Your task to perform on an android device: open the mobile data screen to see how much data has been used Image 0: 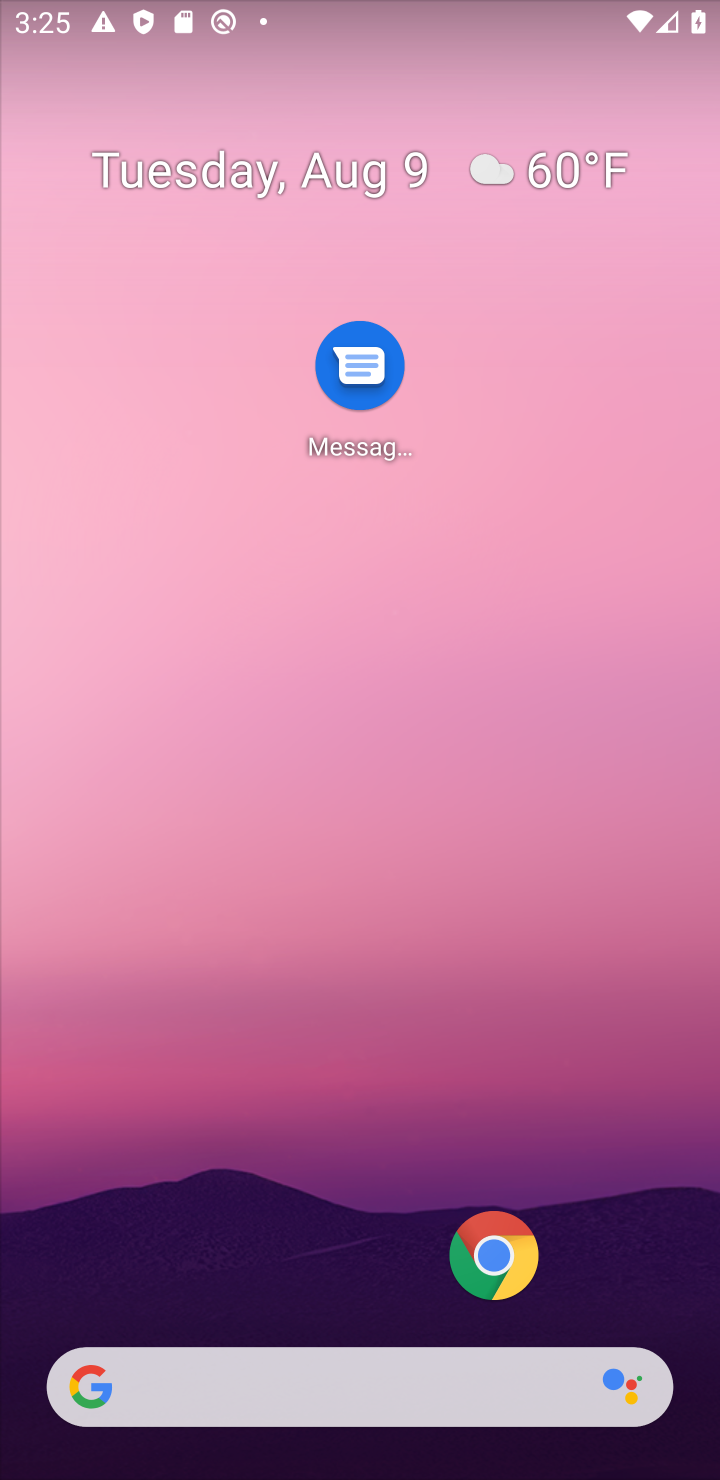
Step 0: drag from (465, 708) to (465, 393)
Your task to perform on an android device: open the mobile data screen to see how much data has been used Image 1: 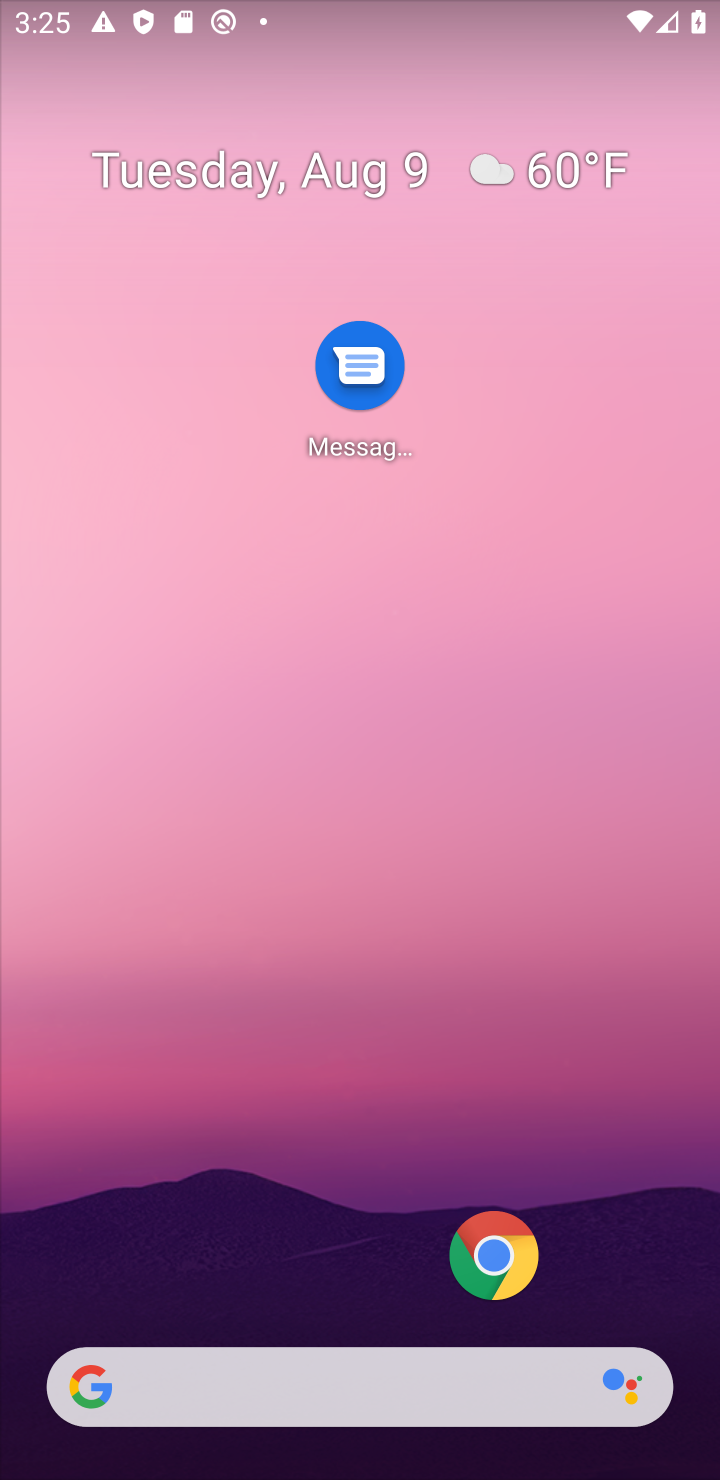
Step 1: drag from (253, 1323) to (478, 141)
Your task to perform on an android device: open the mobile data screen to see how much data has been used Image 2: 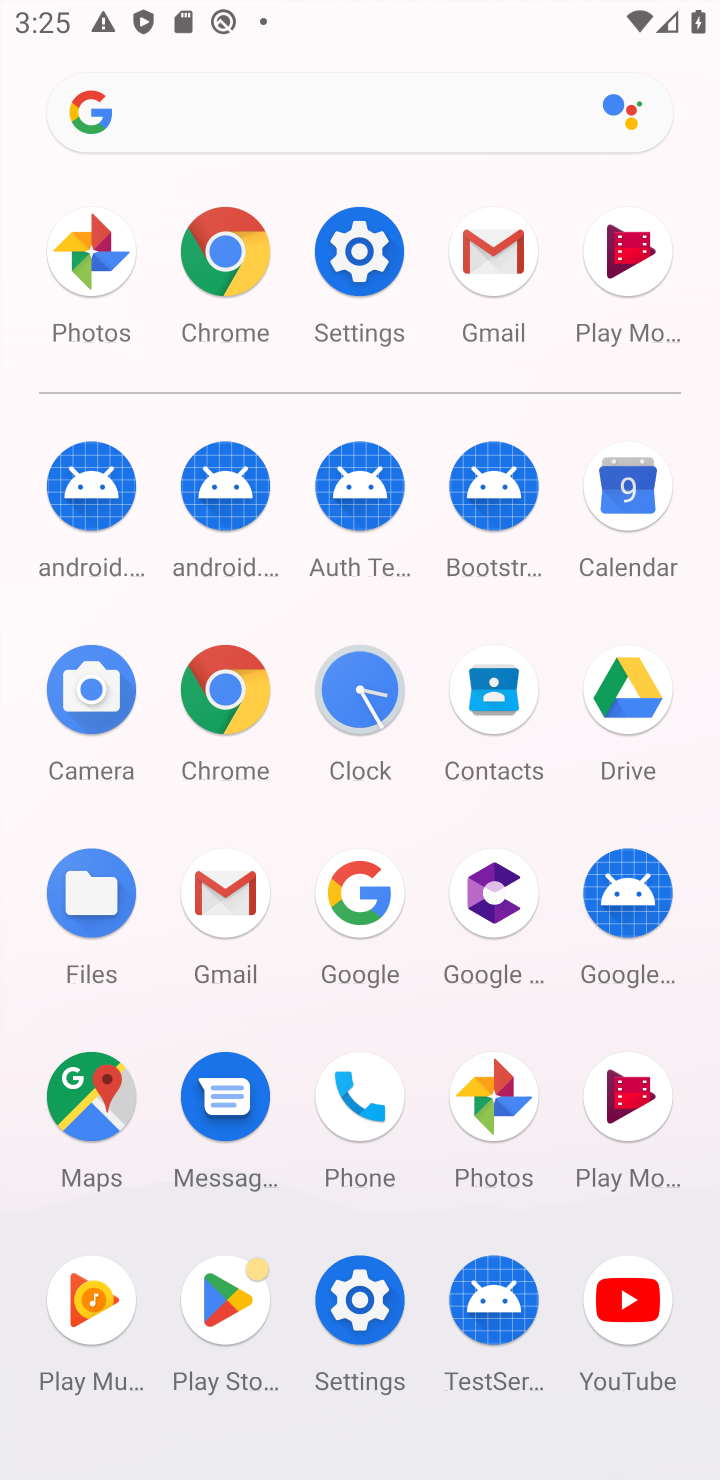
Step 2: click (337, 239)
Your task to perform on an android device: open the mobile data screen to see how much data has been used Image 3: 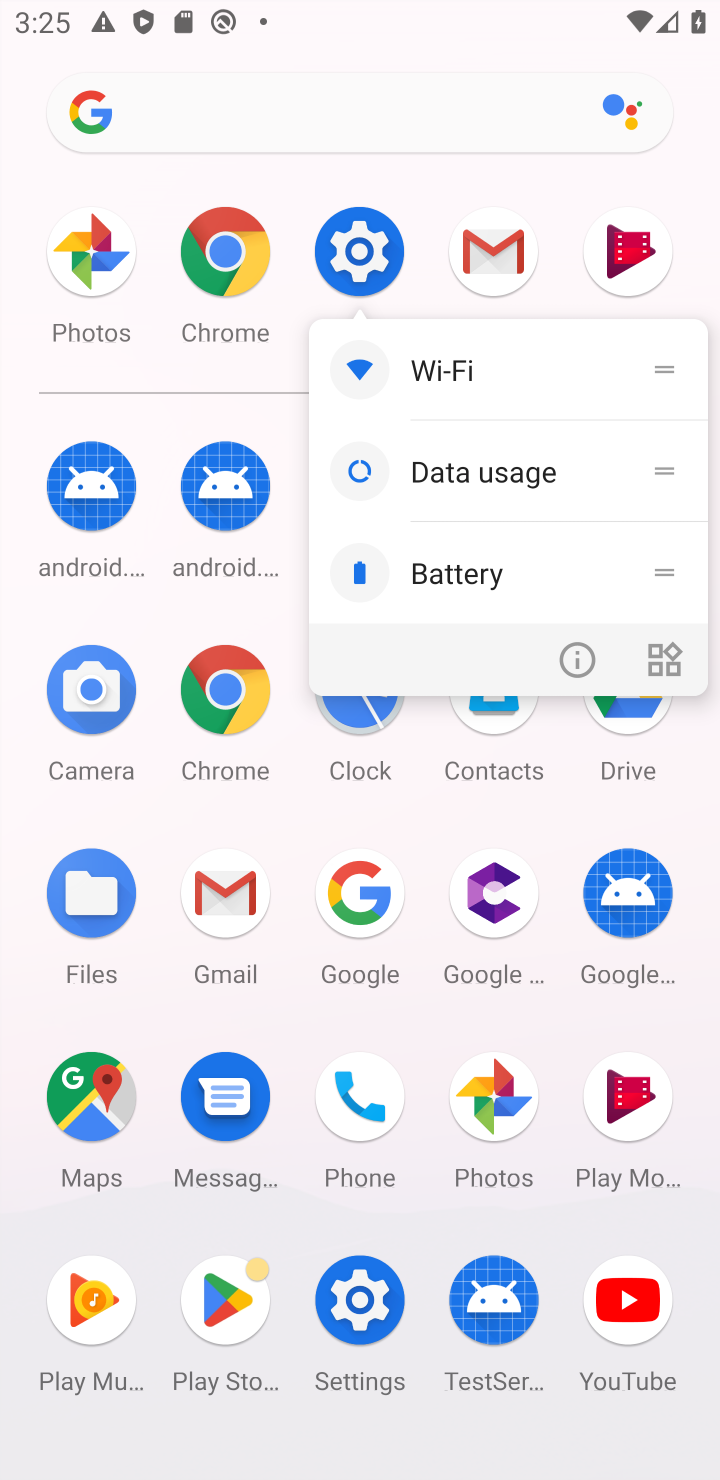
Step 3: click (337, 243)
Your task to perform on an android device: open the mobile data screen to see how much data has been used Image 4: 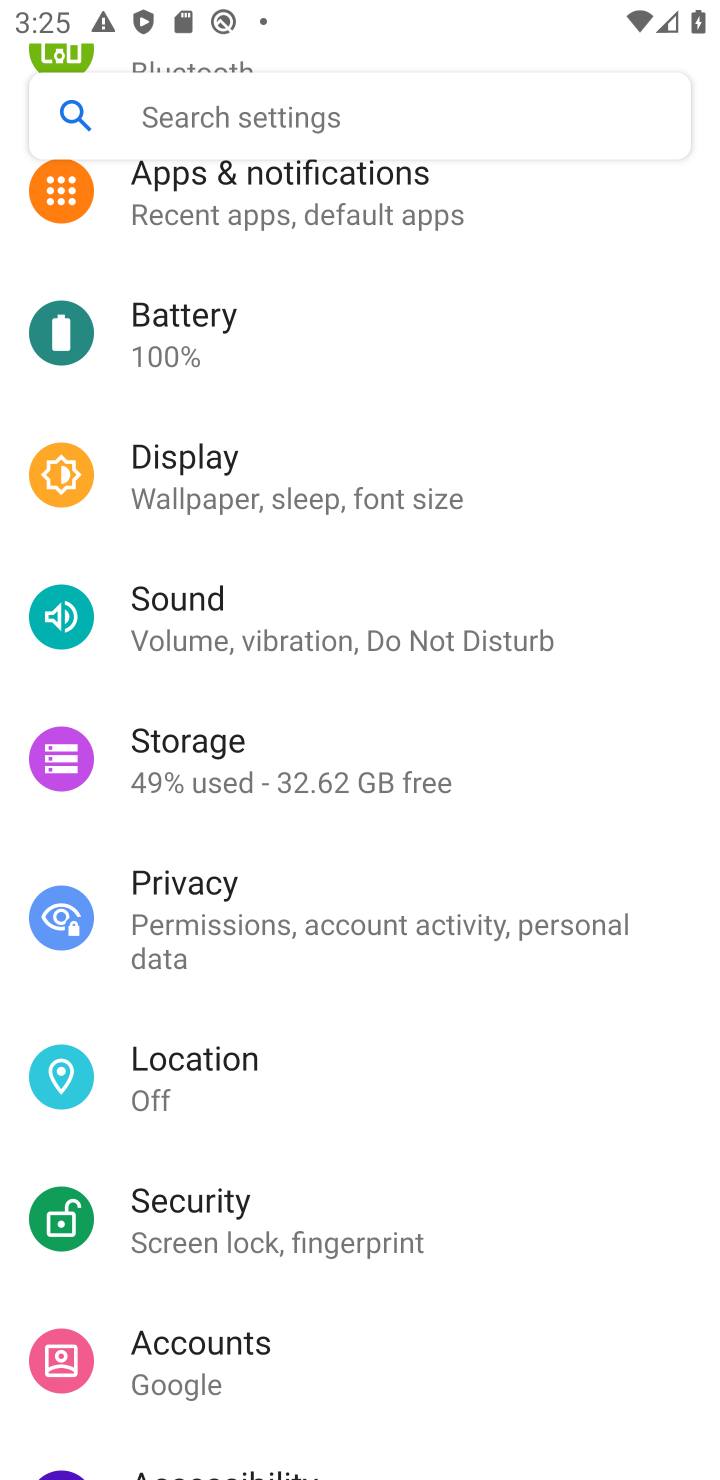
Step 4: drag from (311, 235) to (306, 1206)
Your task to perform on an android device: open the mobile data screen to see how much data has been used Image 5: 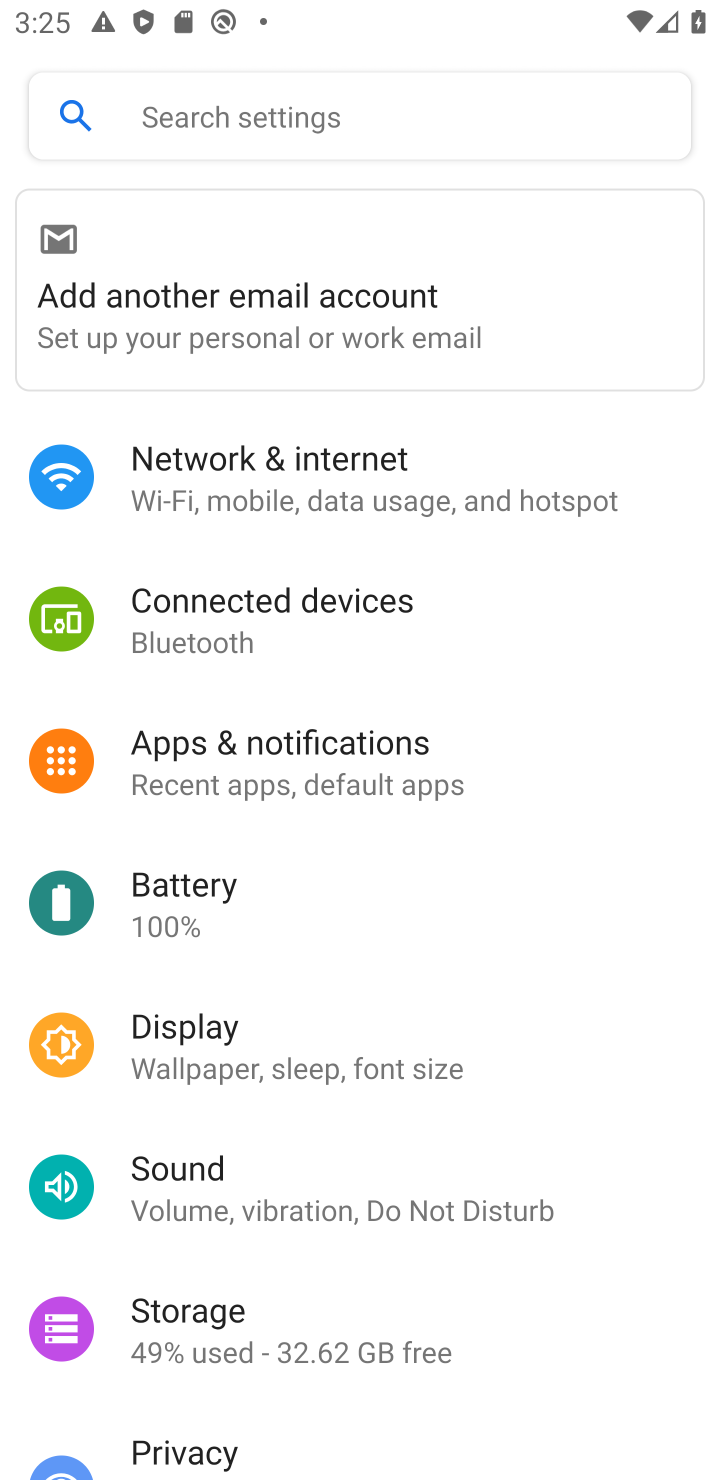
Step 5: click (362, 474)
Your task to perform on an android device: open the mobile data screen to see how much data has been used Image 6: 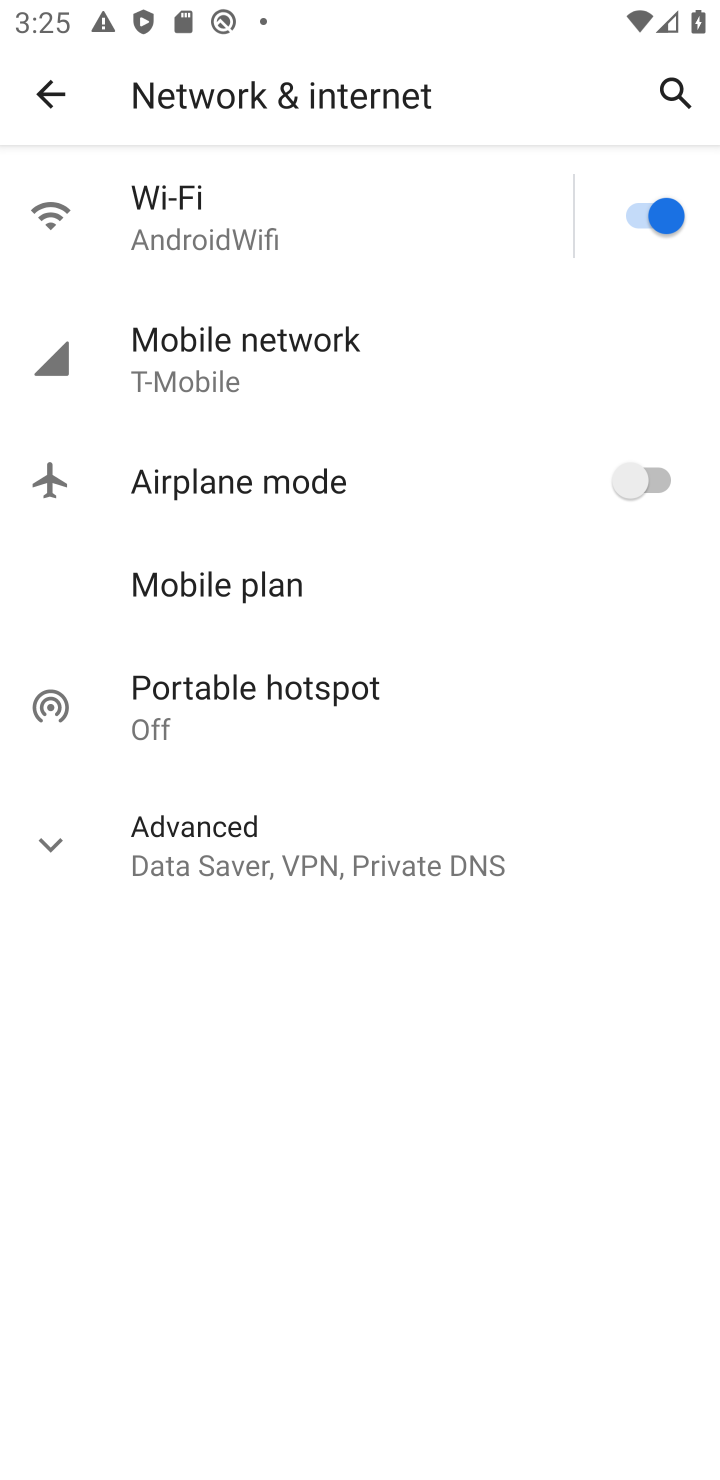
Step 6: click (228, 351)
Your task to perform on an android device: open the mobile data screen to see how much data has been used Image 7: 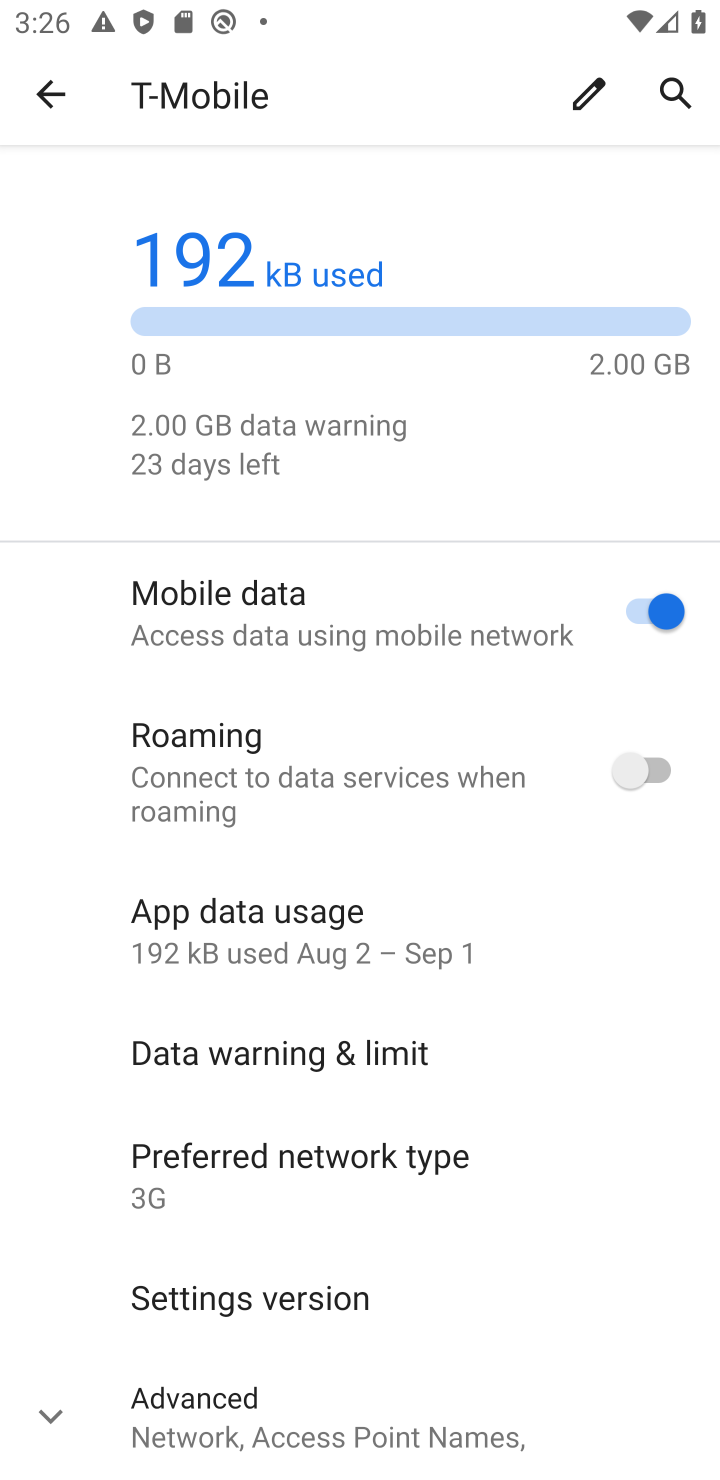
Step 7: task complete